Your task to perform on an android device: set the stopwatch Image 0: 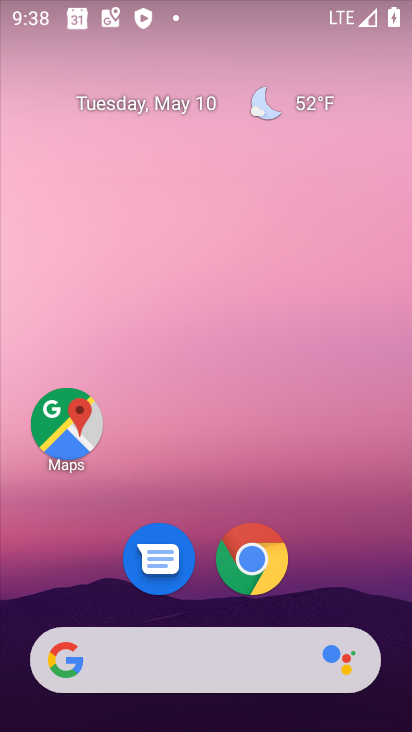
Step 0: drag from (333, 542) to (1, 406)
Your task to perform on an android device: set the stopwatch Image 1: 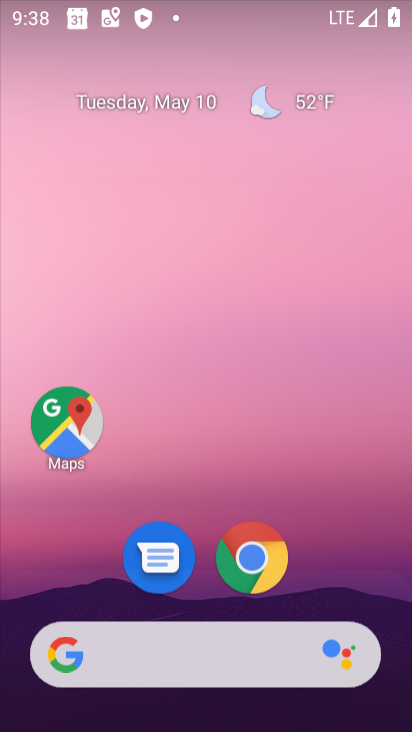
Step 1: drag from (11, 543) to (21, 8)
Your task to perform on an android device: set the stopwatch Image 2: 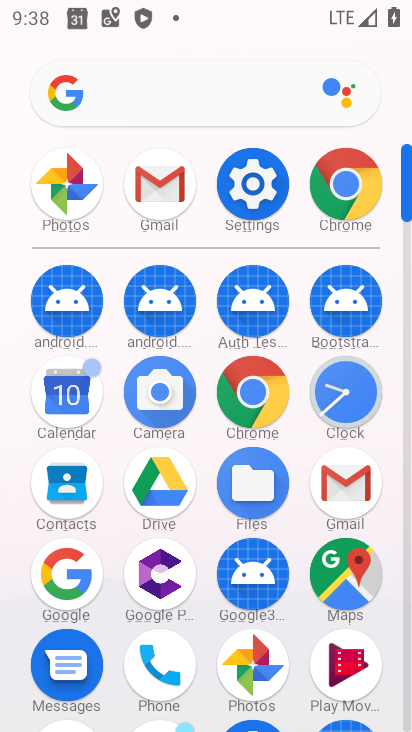
Step 2: click (346, 383)
Your task to perform on an android device: set the stopwatch Image 3: 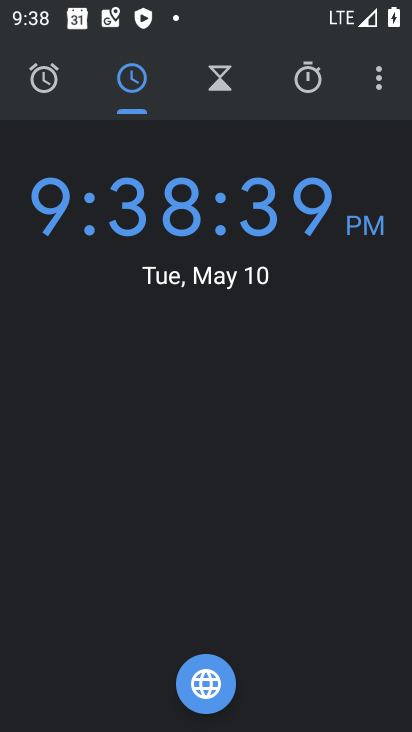
Step 3: click (41, 71)
Your task to perform on an android device: set the stopwatch Image 4: 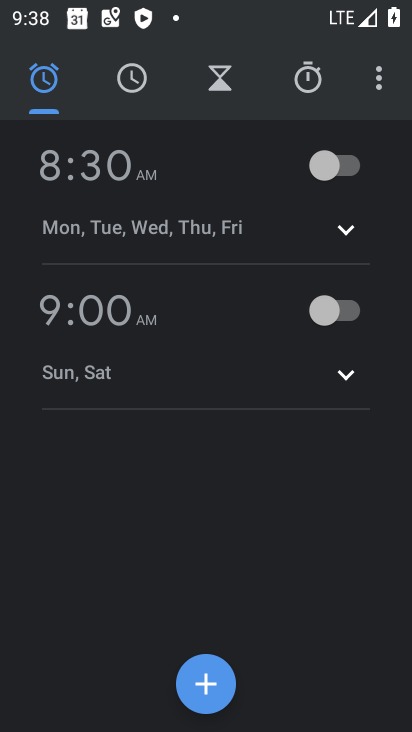
Step 4: click (240, 78)
Your task to perform on an android device: set the stopwatch Image 5: 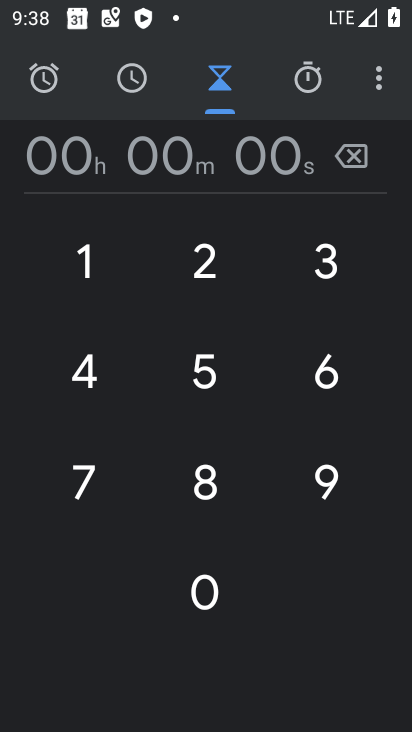
Step 5: click (298, 71)
Your task to perform on an android device: set the stopwatch Image 6: 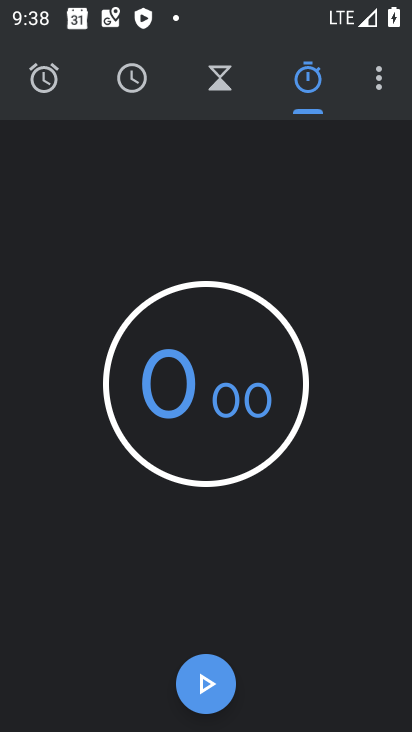
Step 6: click (223, 68)
Your task to perform on an android device: set the stopwatch Image 7: 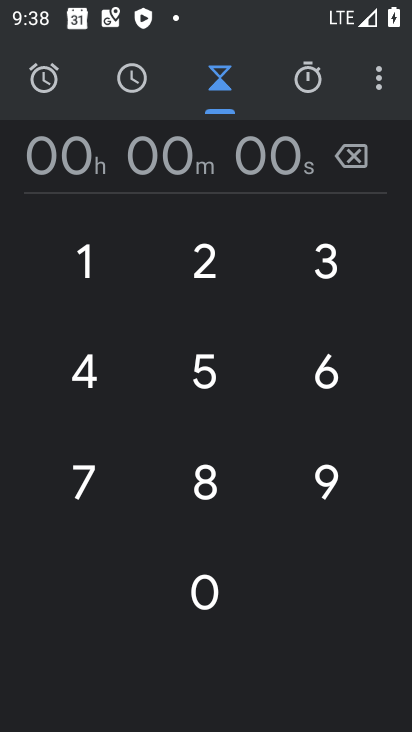
Step 7: click (195, 242)
Your task to perform on an android device: set the stopwatch Image 8: 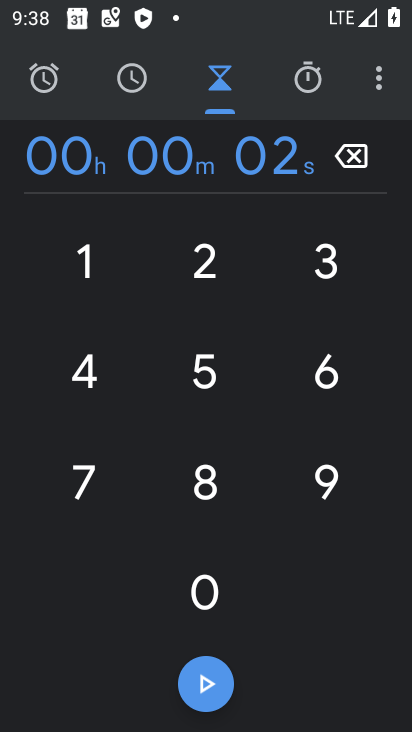
Step 8: click (322, 260)
Your task to perform on an android device: set the stopwatch Image 9: 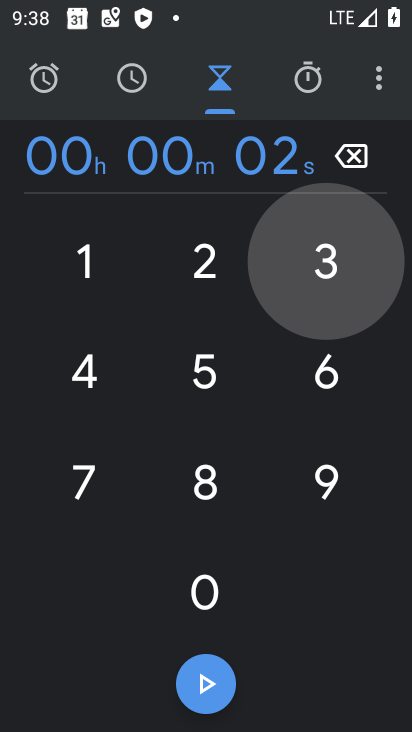
Step 9: click (173, 361)
Your task to perform on an android device: set the stopwatch Image 10: 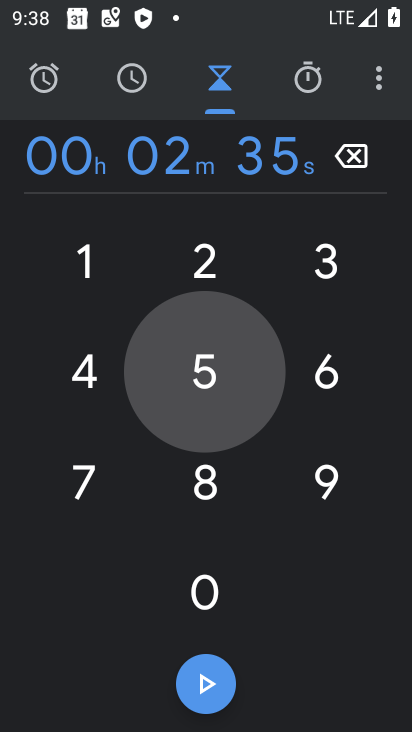
Step 10: click (322, 370)
Your task to perform on an android device: set the stopwatch Image 11: 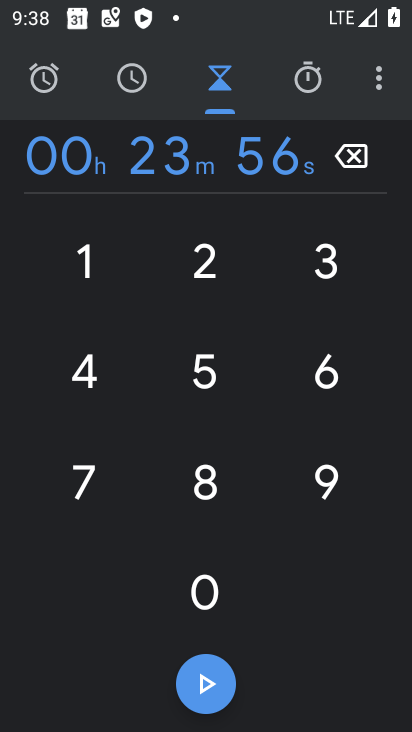
Step 11: click (200, 689)
Your task to perform on an android device: set the stopwatch Image 12: 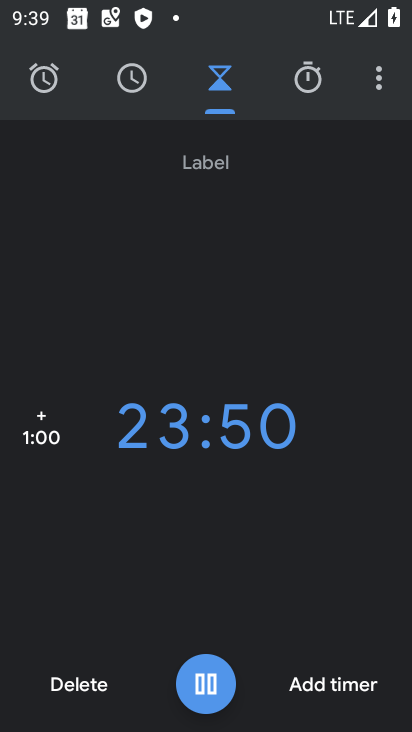
Step 12: task complete